Your task to perform on an android device: visit the assistant section in the google photos Image 0: 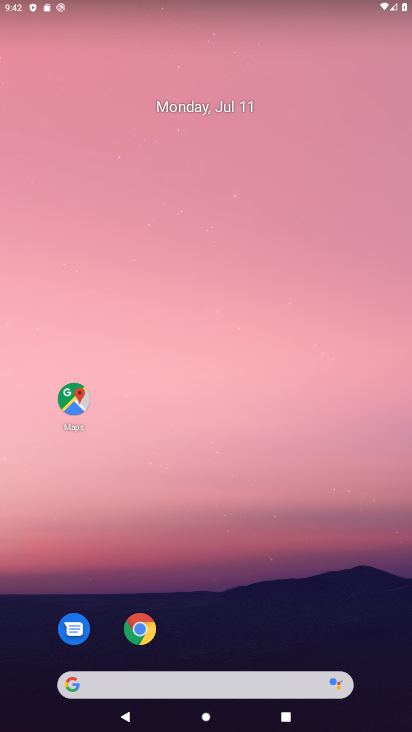
Step 0: drag from (266, 631) to (208, 7)
Your task to perform on an android device: visit the assistant section in the google photos Image 1: 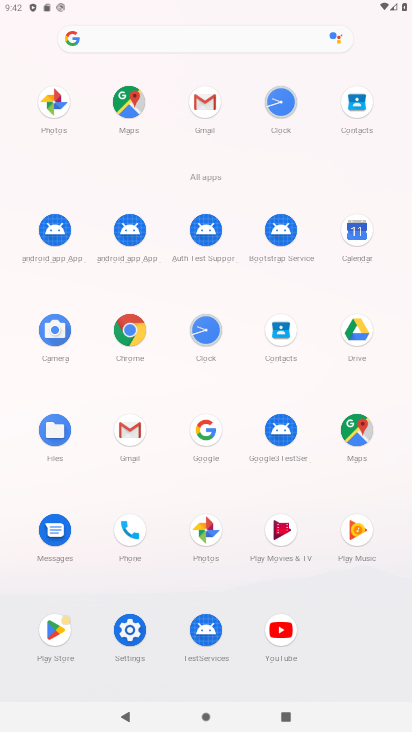
Step 1: click (130, 627)
Your task to perform on an android device: visit the assistant section in the google photos Image 2: 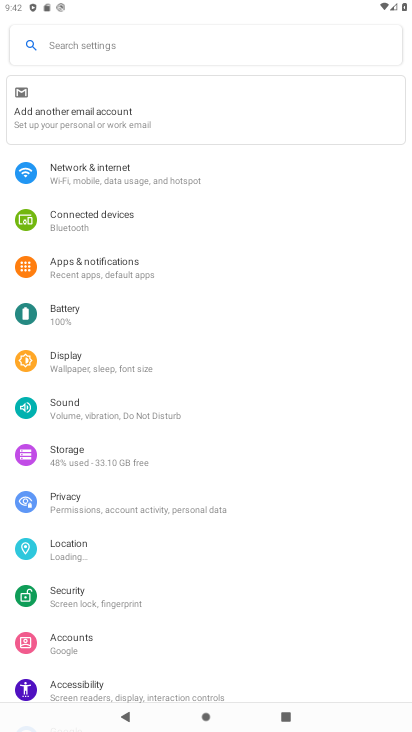
Step 2: click (95, 372)
Your task to perform on an android device: visit the assistant section in the google photos Image 3: 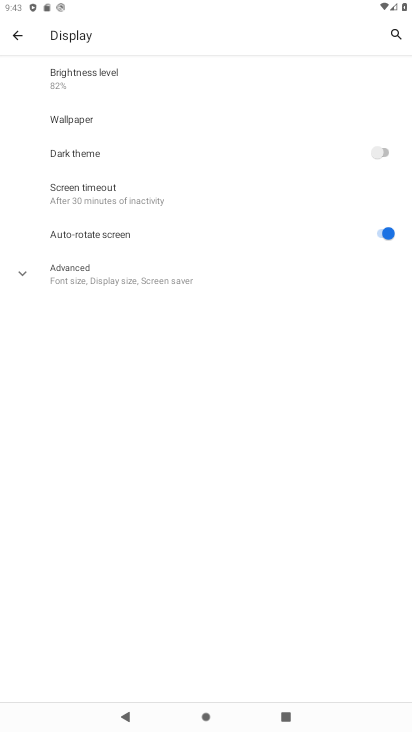
Step 3: press home button
Your task to perform on an android device: visit the assistant section in the google photos Image 4: 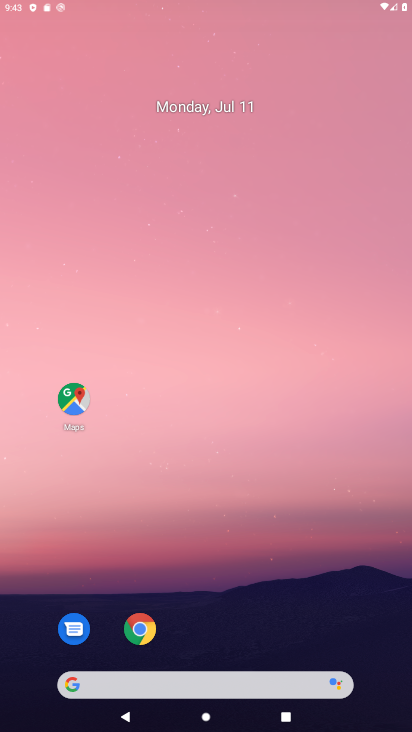
Step 4: drag from (248, 608) to (211, 16)
Your task to perform on an android device: visit the assistant section in the google photos Image 5: 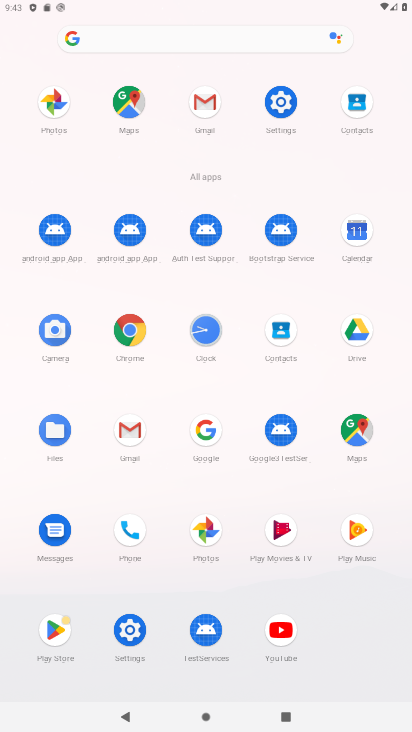
Step 5: click (206, 522)
Your task to perform on an android device: visit the assistant section in the google photos Image 6: 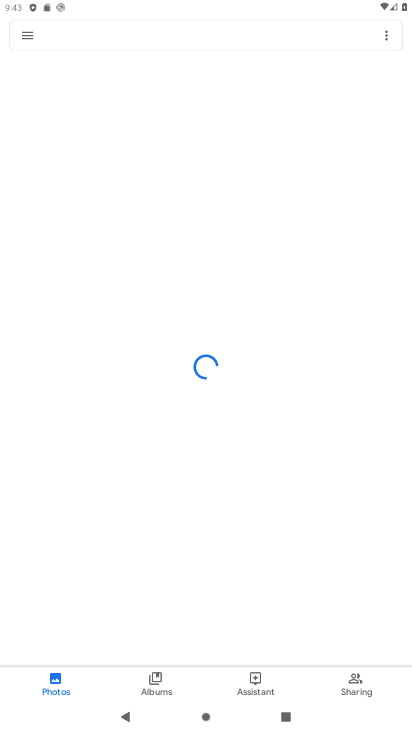
Step 6: click (252, 672)
Your task to perform on an android device: visit the assistant section in the google photos Image 7: 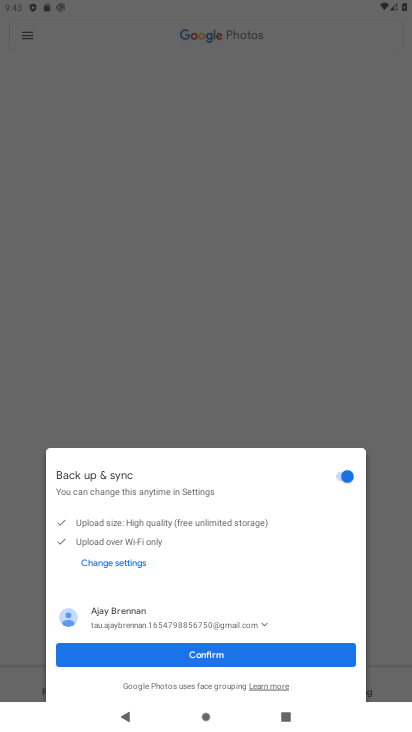
Step 7: click (247, 655)
Your task to perform on an android device: visit the assistant section in the google photos Image 8: 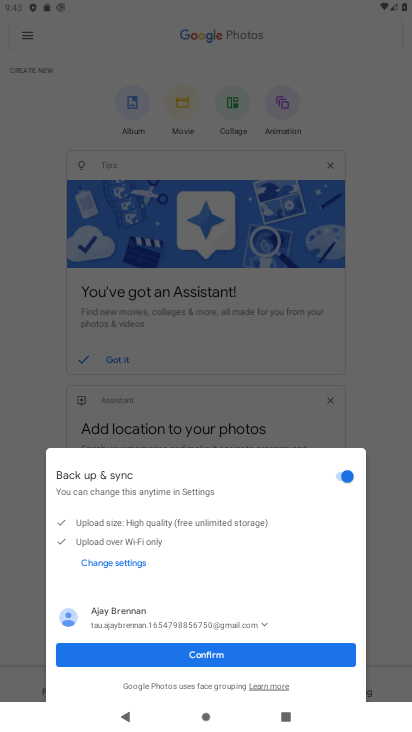
Step 8: click (196, 648)
Your task to perform on an android device: visit the assistant section in the google photos Image 9: 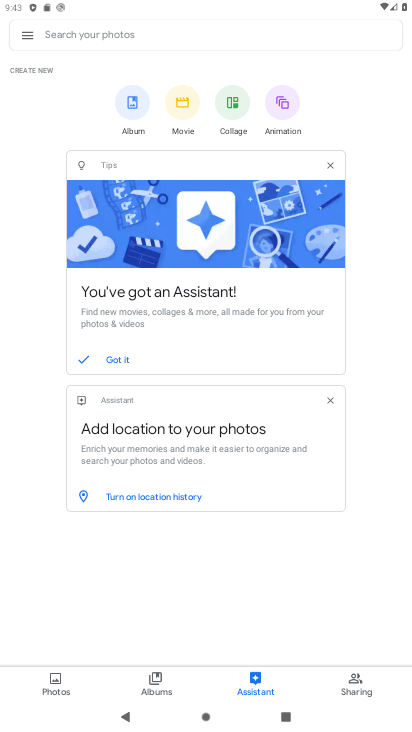
Step 9: task complete